Your task to perform on an android device: show emergency info Image 0: 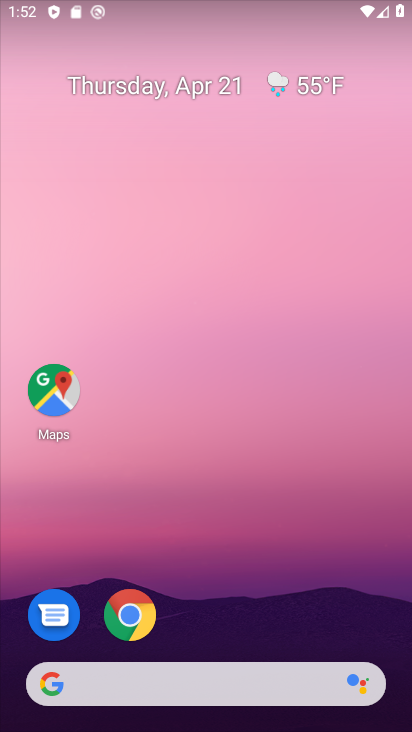
Step 0: drag from (182, 659) to (241, 317)
Your task to perform on an android device: show emergency info Image 1: 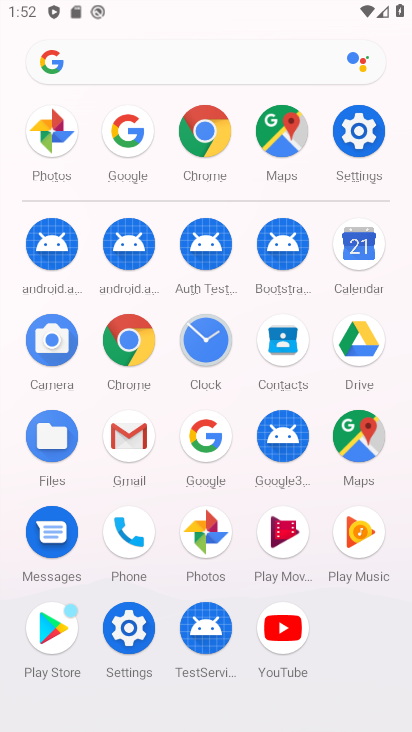
Step 1: click (366, 134)
Your task to perform on an android device: show emergency info Image 2: 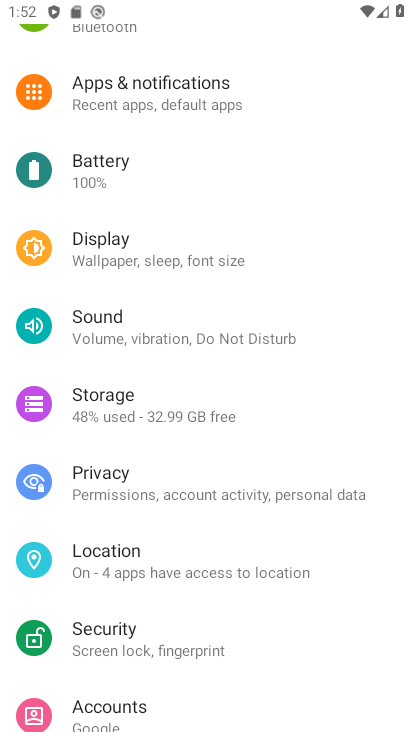
Step 2: drag from (178, 702) to (258, 320)
Your task to perform on an android device: show emergency info Image 3: 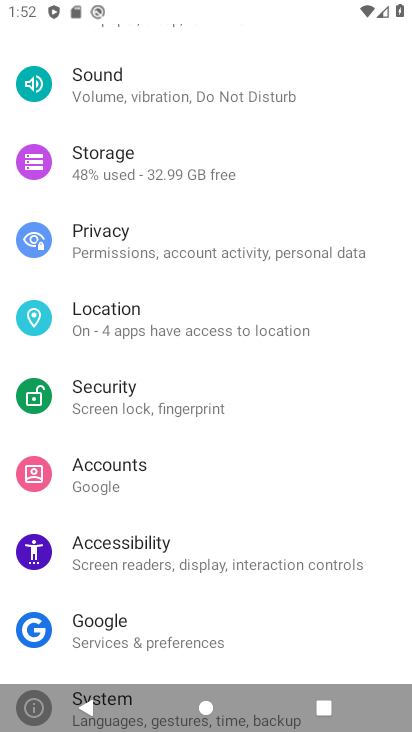
Step 3: drag from (190, 635) to (249, 270)
Your task to perform on an android device: show emergency info Image 4: 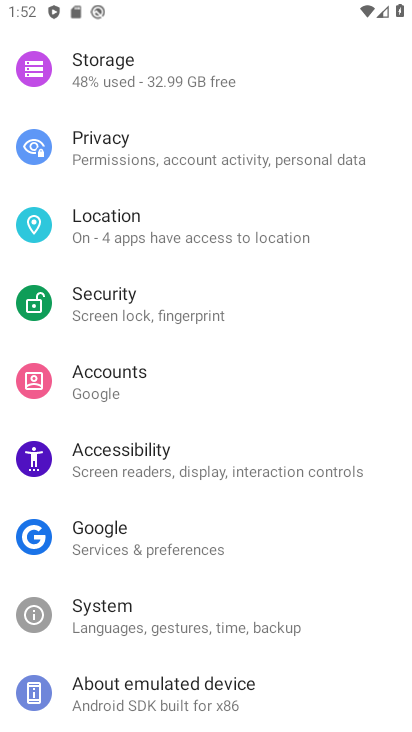
Step 4: click (152, 687)
Your task to perform on an android device: show emergency info Image 5: 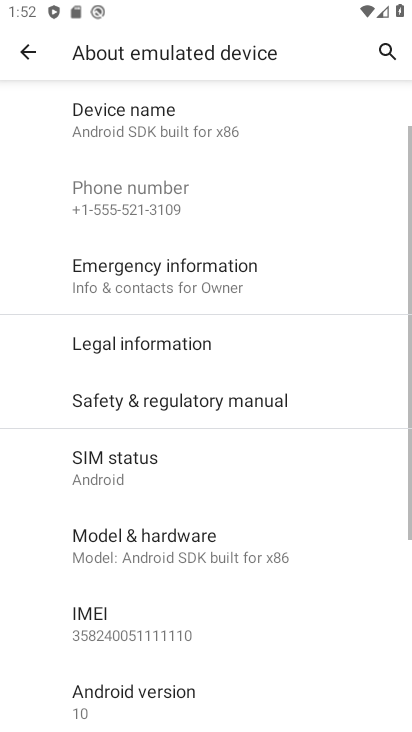
Step 5: click (209, 269)
Your task to perform on an android device: show emergency info Image 6: 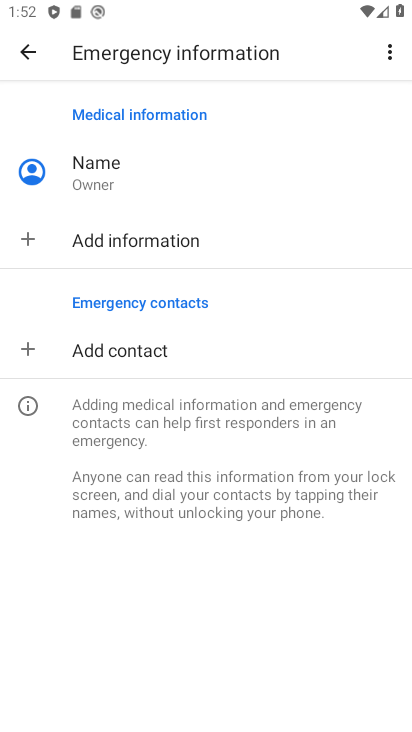
Step 6: task complete